Your task to perform on an android device: Open settings on Google Maps Image 0: 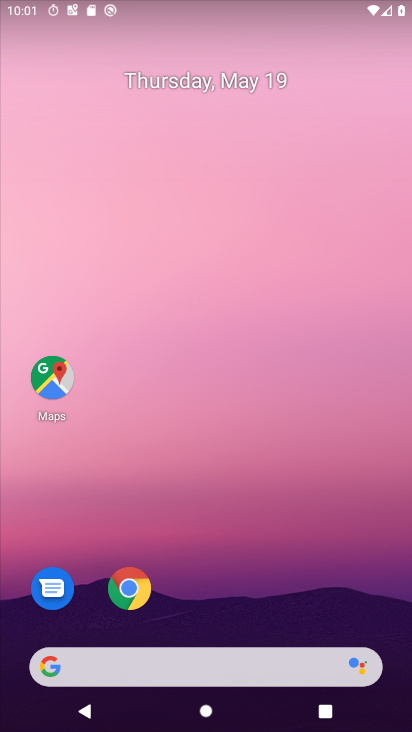
Step 0: press home button
Your task to perform on an android device: Open settings on Google Maps Image 1: 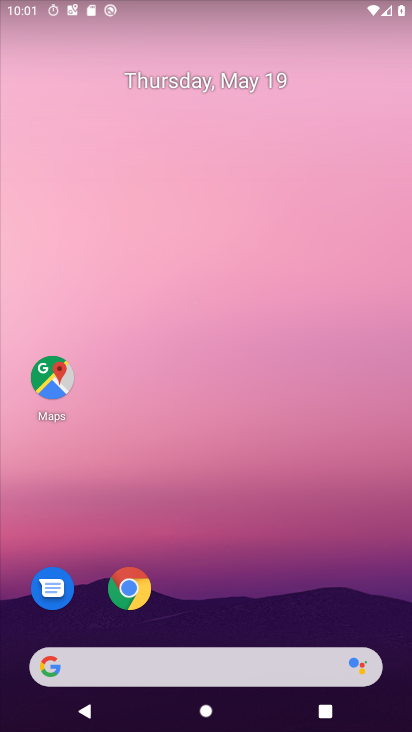
Step 1: click (54, 373)
Your task to perform on an android device: Open settings on Google Maps Image 2: 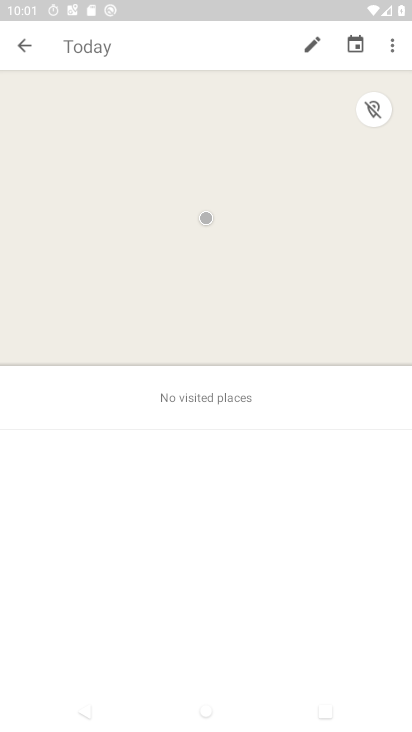
Step 2: click (22, 43)
Your task to perform on an android device: Open settings on Google Maps Image 3: 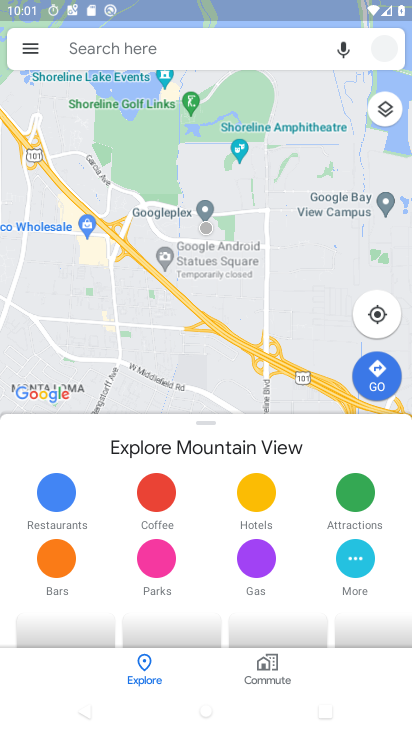
Step 3: click (25, 46)
Your task to perform on an android device: Open settings on Google Maps Image 4: 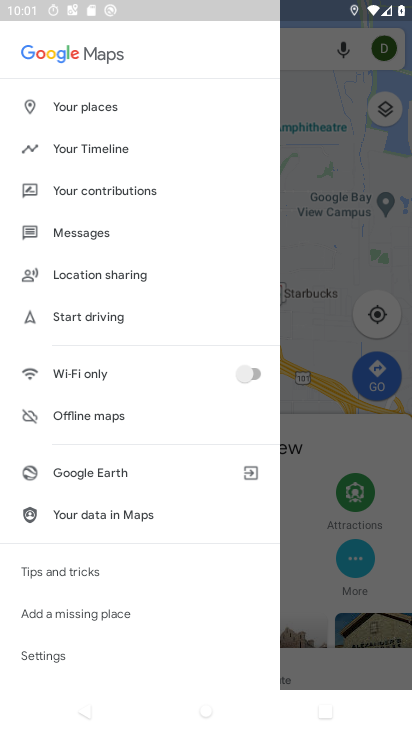
Step 4: drag from (165, 540) to (215, 76)
Your task to perform on an android device: Open settings on Google Maps Image 5: 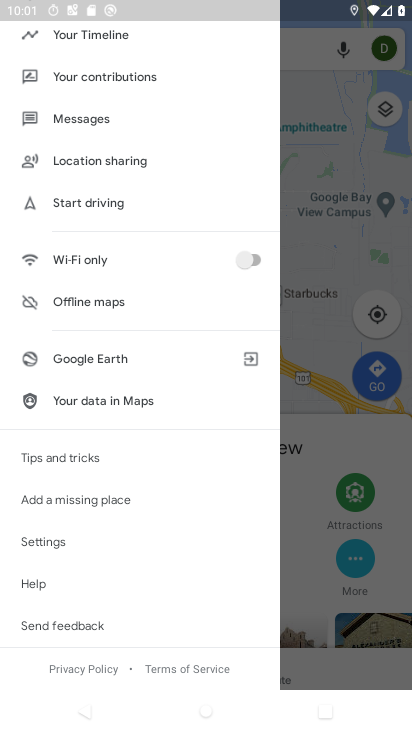
Step 5: click (56, 540)
Your task to perform on an android device: Open settings on Google Maps Image 6: 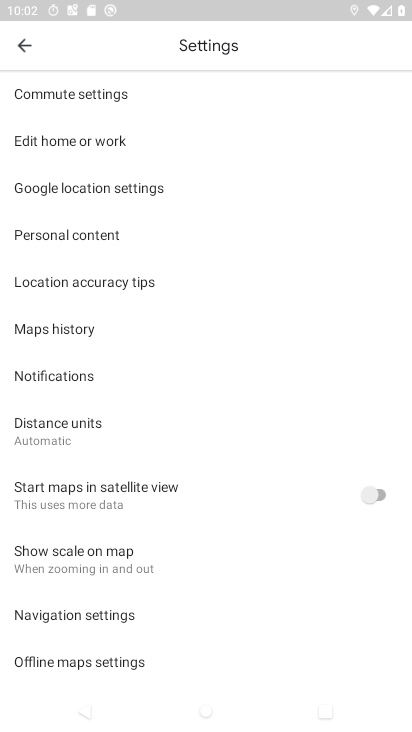
Step 6: task complete